Your task to perform on an android device: Go to sound settings Image 0: 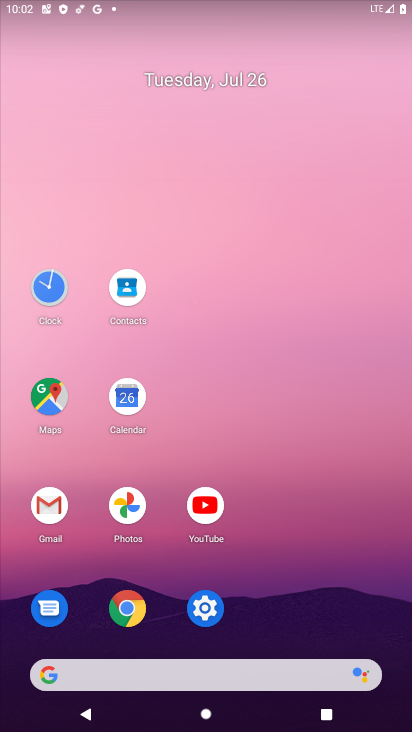
Step 0: click (201, 611)
Your task to perform on an android device: Go to sound settings Image 1: 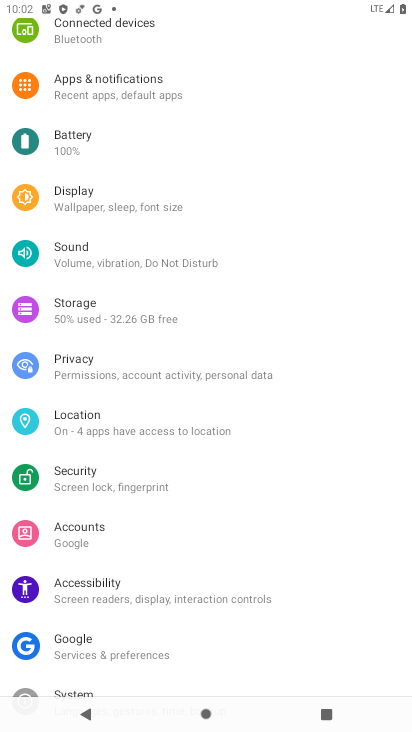
Step 1: click (64, 254)
Your task to perform on an android device: Go to sound settings Image 2: 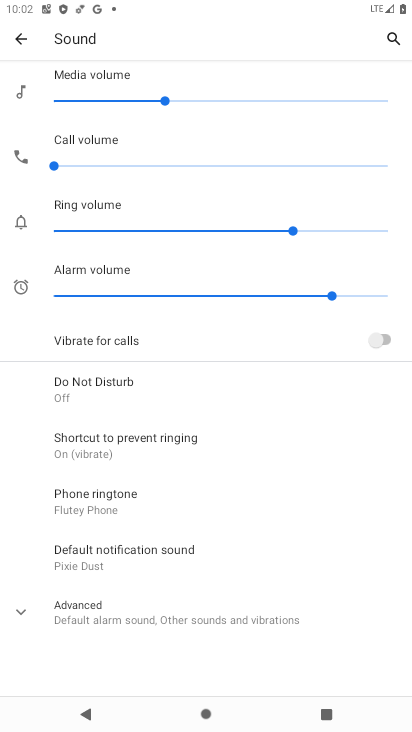
Step 2: task complete